Your task to perform on an android device: turn off picture-in-picture Image 0: 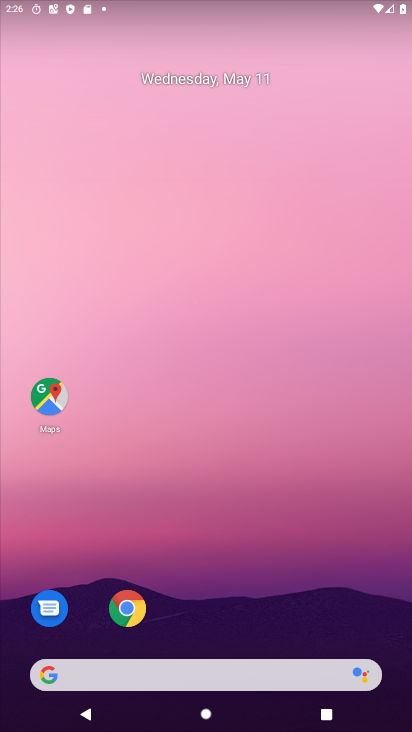
Step 0: drag from (300, 638) to (296, 409)
Your task to perform on an android device: turn off picture-in-picture Image 1: 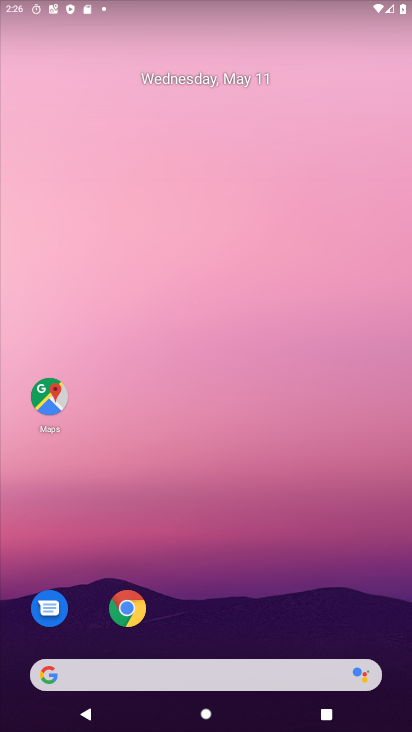
Step 1: drag from (275, 575) to (307, 172)
Your task to perform on an android device: turn off picture-in-picture Image 2: 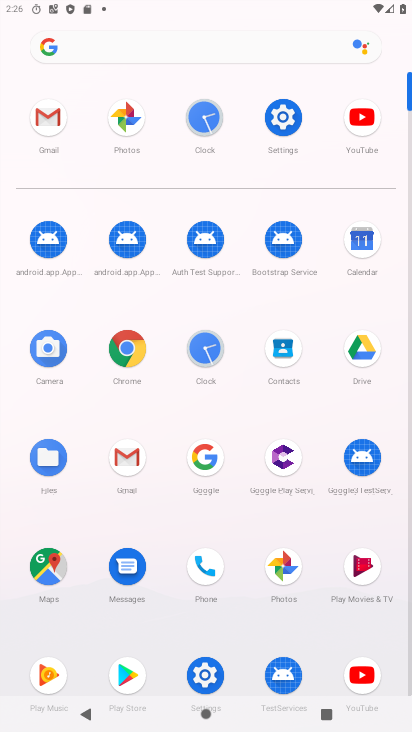
Step 2: click (292, 137)
Your task to perform on an android device: turn off picture-in-picture Image 3: 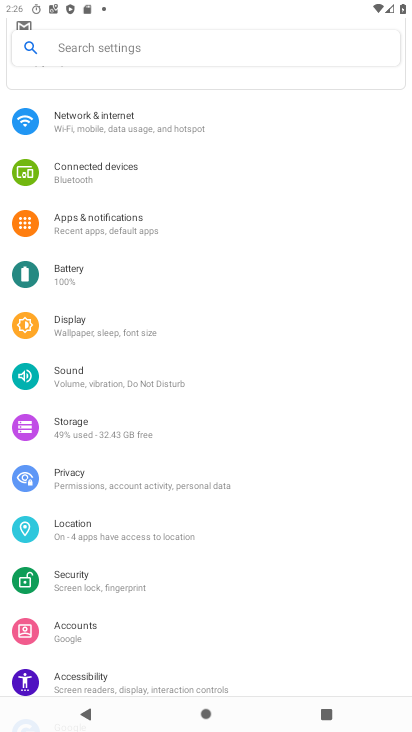
Step 3: click (106, 223)
Your task to perform on an android device: turn off picture-in-picture Image 4: 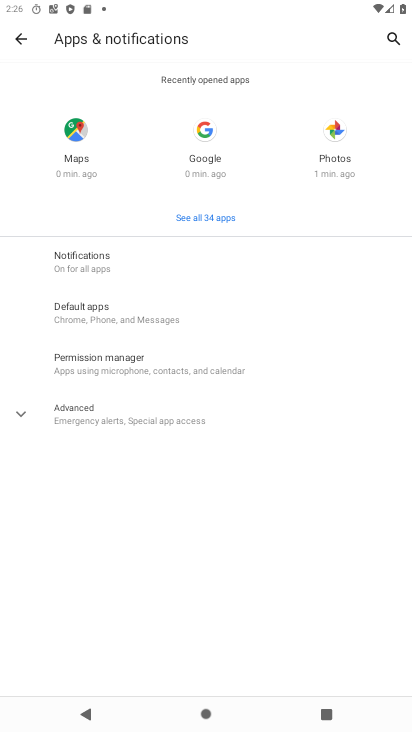
Step 4: click (155, 416)
Your task to perform on an android device: turn off picture-in-picture Image 5: 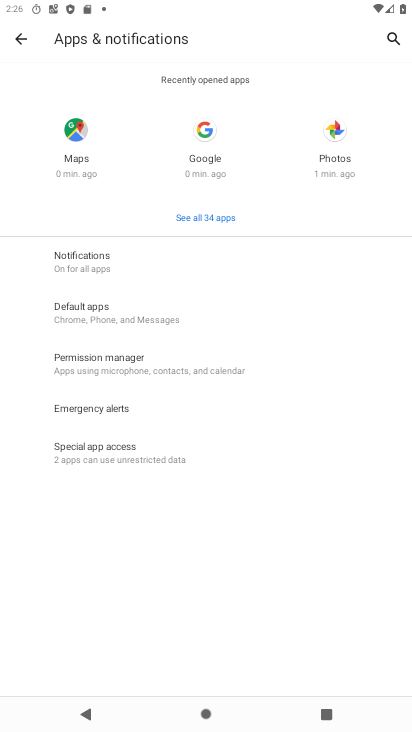
Step 5: click (127, 454)
Your task to perform on an android device: turn off picture-in-picture Image 6: 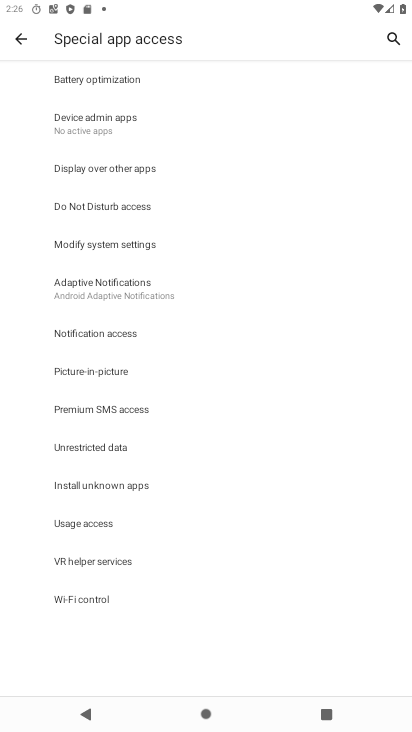
Step 6: click (89, 370)
Your task to perform on an android device: turn off picture-in-picture Image 7: 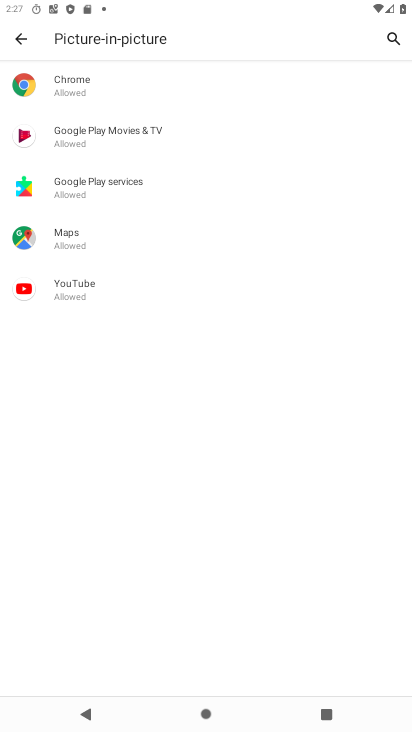
Step 7: click (101, 84)
Your task to perform on an android device: turn off picture-in-picture Image 8: 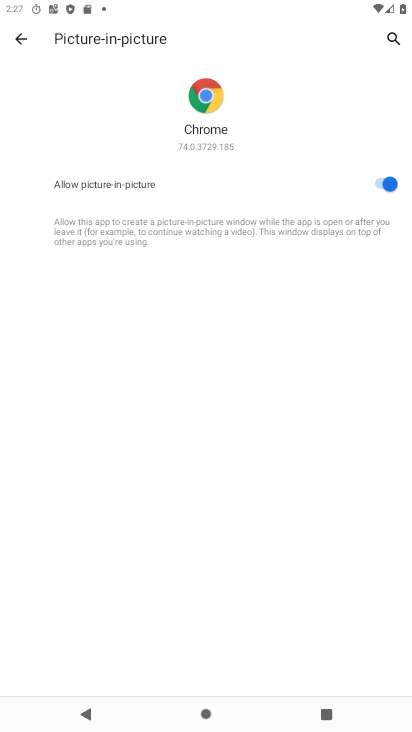
Step 8: click (382, 185)
Your task to perform on an android device: turn off picture-in-picture Image 9: 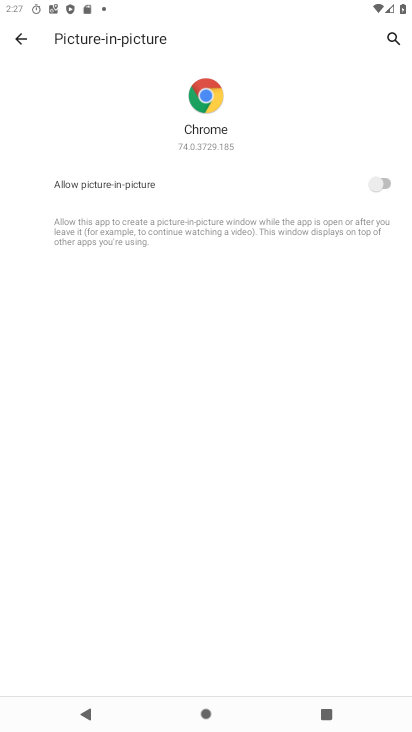
Step 9: click (19, 31)
Your task to perform on an android device: turn off picture-in-picture Image 10: 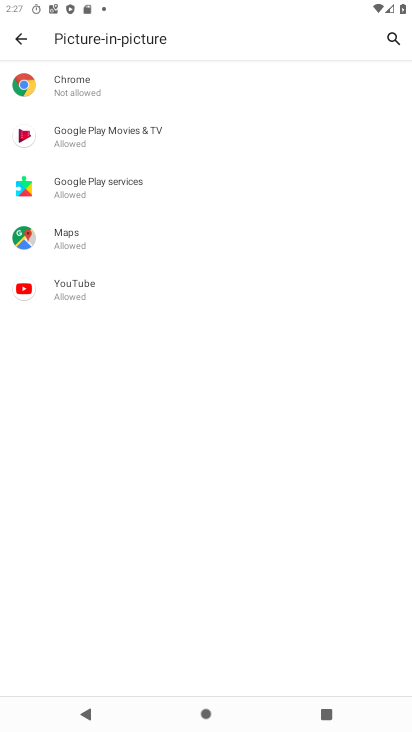
Step 10: click (153, 147)
Your task to perform on an android device: turn off picture-in-picture Image 11: 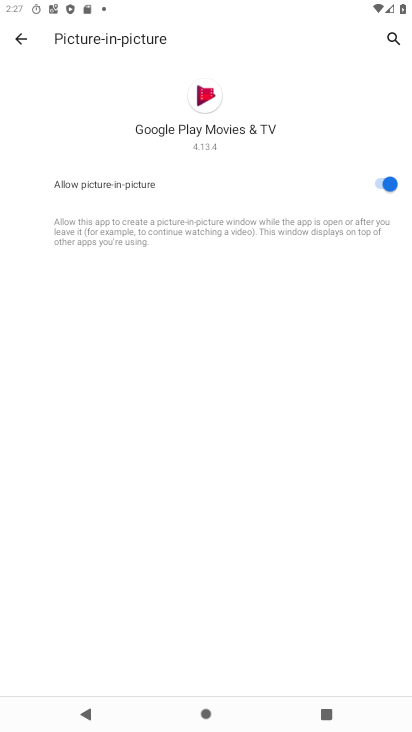
Step 11: click (374, 182)
Your task to perform on an android device: turn off picture-in-picture Image 12: 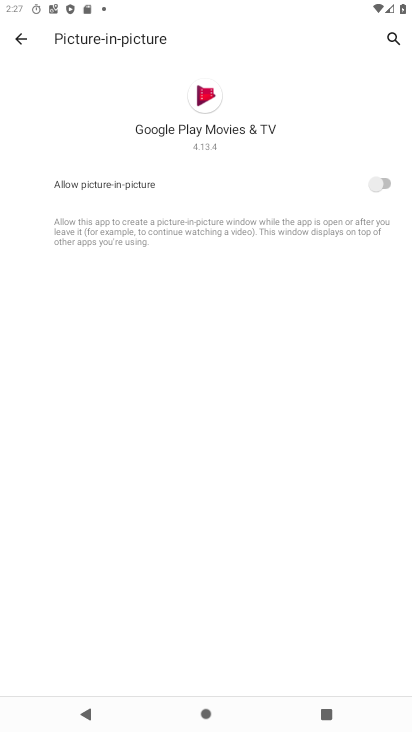
Step 12: click (26, 38)
Your task to perform on an android device: turn off picture-in-picture Image 13: 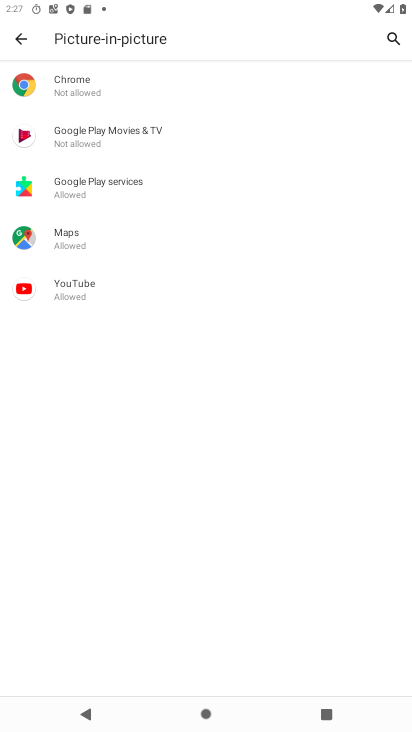
Step 13: click (139, 192)
Your task to perform on an android device: turn off picture-in-picture Image 14: 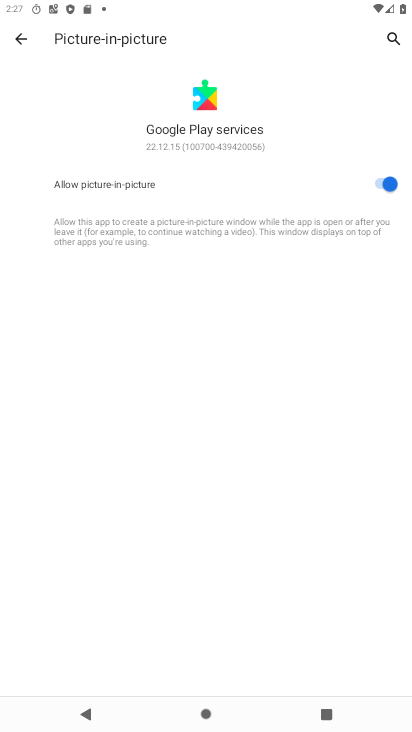
Step 14: click (378, 177)
Your task to perform on an android device: turn off picture-in-picture Image 15: 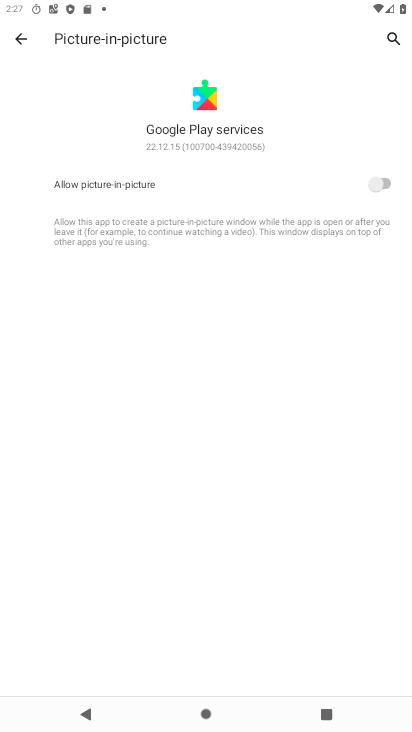
Step 15: click (19, 39)
Your task to perform on an android device: turn off picture-in-picture Image 16: 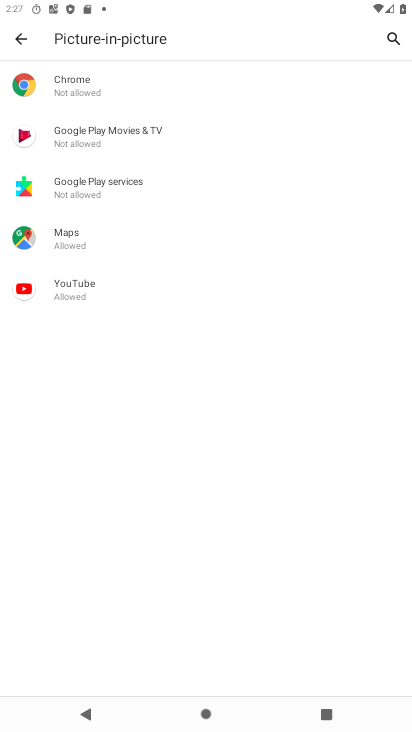
Step 16: click (97, 241)
Your task to perform on an android device: turn off picture-in-picture Image 17: 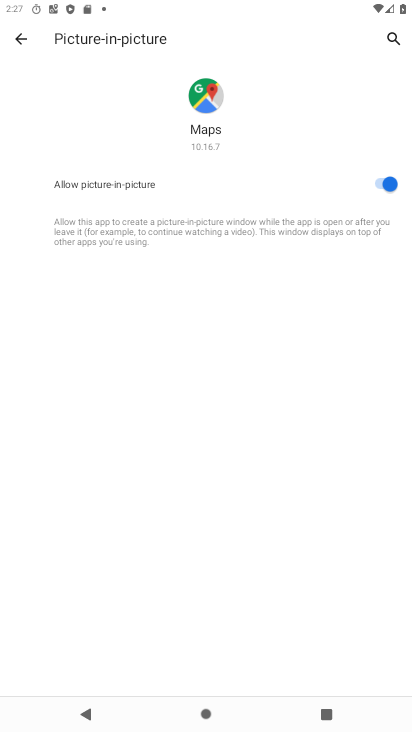
Step 17: click (376, 183)
Your task to perform on an android device: turn off picture-in-picture Image 18: 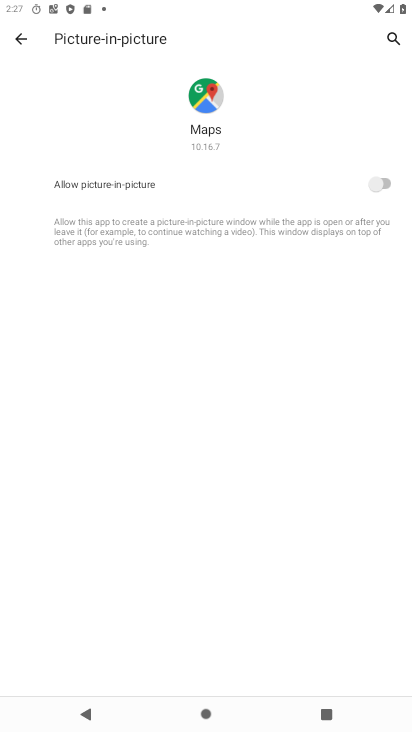
Step 18: click (19, 40)
Your task to perform on an android device: turn off picture-in-picture Image 19: 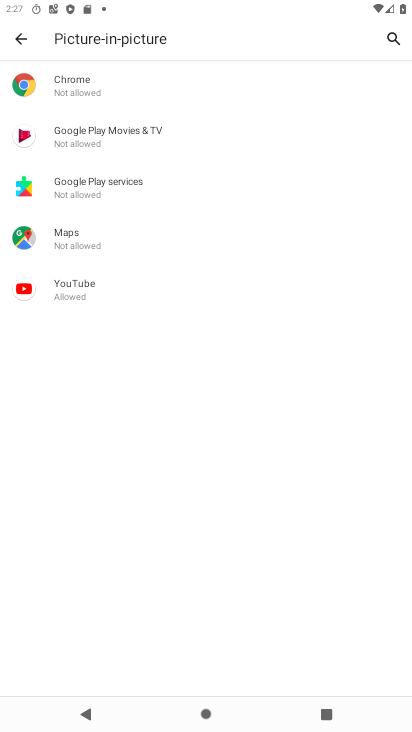
Step 19: click (86, 296)
Your task to perform on an android device: turn off picture-in-picture Image 20: 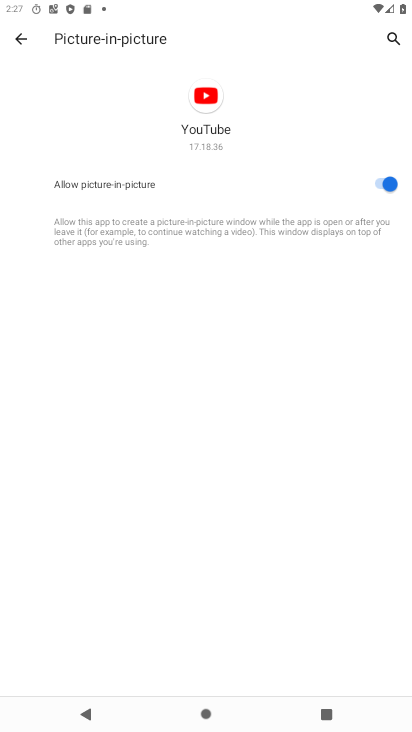
Step 20: click (374, 179)
Your task to perform on an android device: turn off picture-in-picture Image 21: 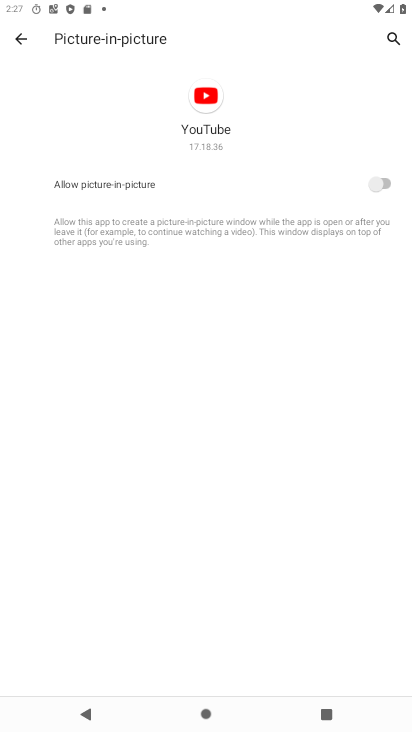
Step 21: task complete